Your task to perform on an android device: turn off sleep mode Image 0: 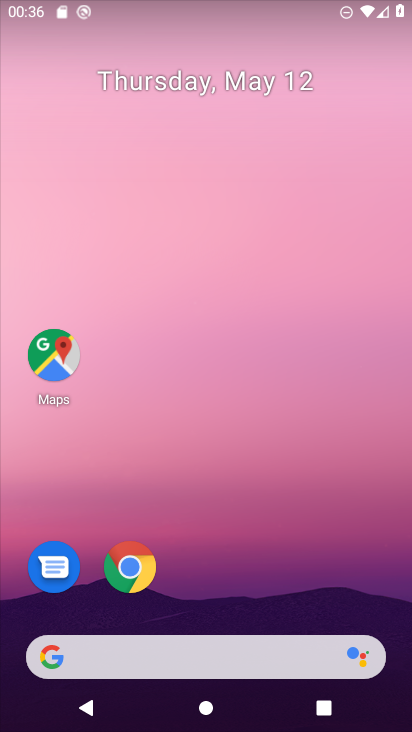
Step 0: drag from (305, 691) to (320, 212)
Your task to perform on an android device: turn off sleep mode Image 1: 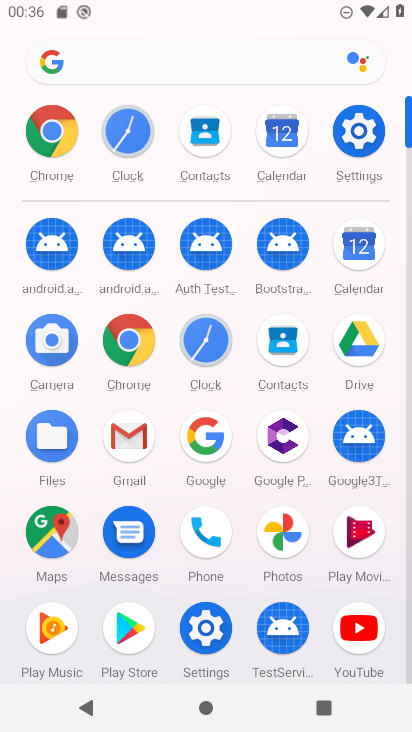
Step 1: click (361, 137)
Your task to perform on an android device: turn off sleep mode Image 2: 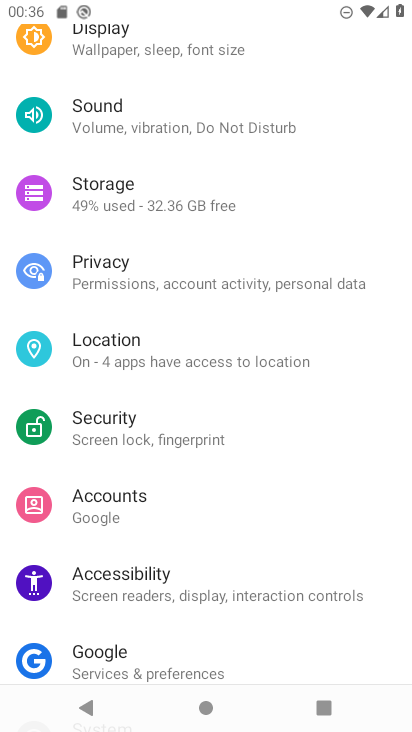
Step 2: click (168, 45)
Your task to perform on an android device: turn off sleep mode Image 3: 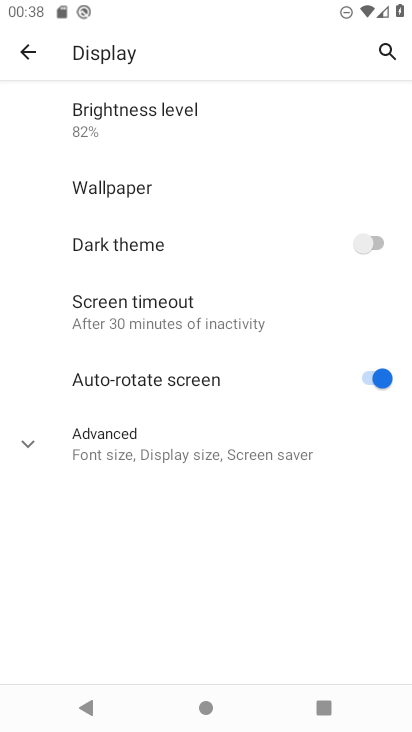
Step 3: task complete